Your task to perform on an android device: delete browsing data in the chrome app Image 0: 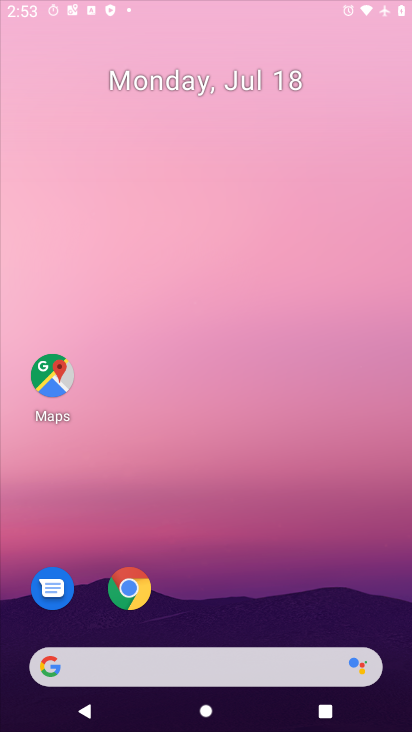
Step 0: press home button
Your task to perform on an android device: delete browsing data in the chrome app Image 1: 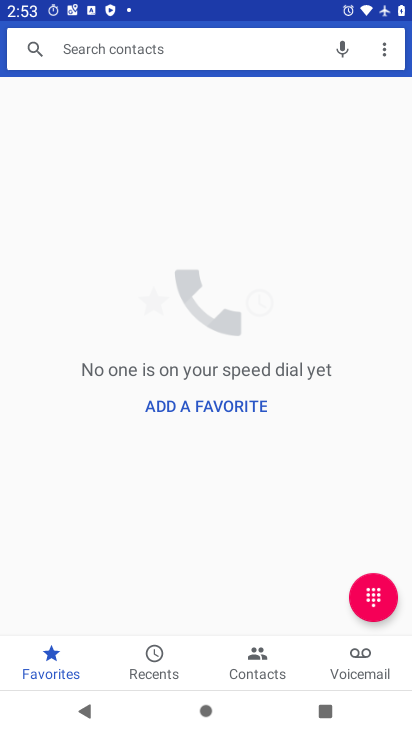
Step 1: drag from (239, 243) to (249, 150)
Your task to perform on an android device: delete browsing data in the chrome app Image 2: 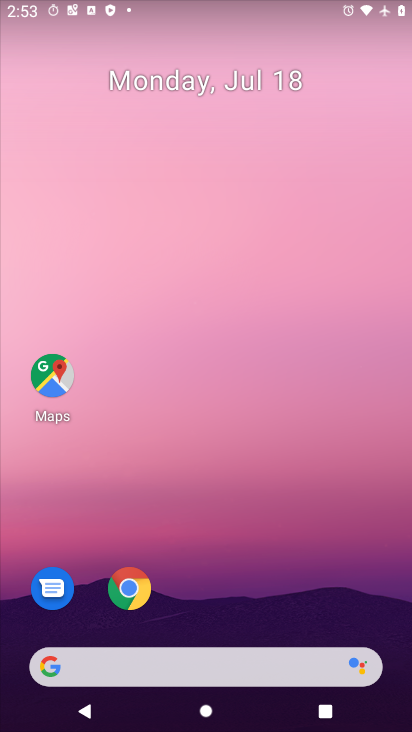
Step 2: drag from (242, 486) to (329, 114)
Your task to perform on an android device: delete browsing data in the chrome app Image 3: 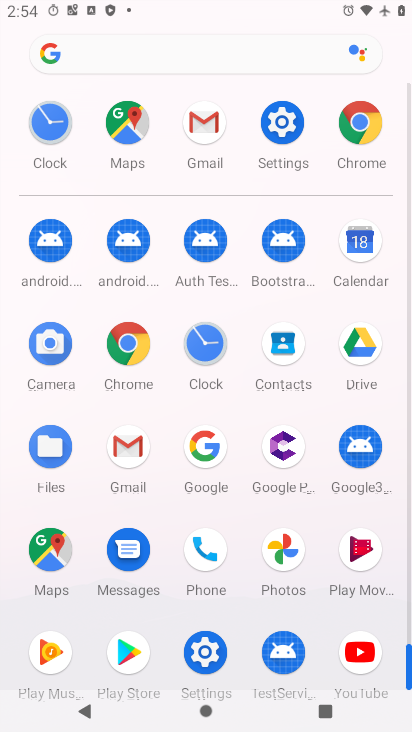
Step 3: click (364, 137)
Your task to perform on an android device: delete browsing data in the chrome app Image 4: 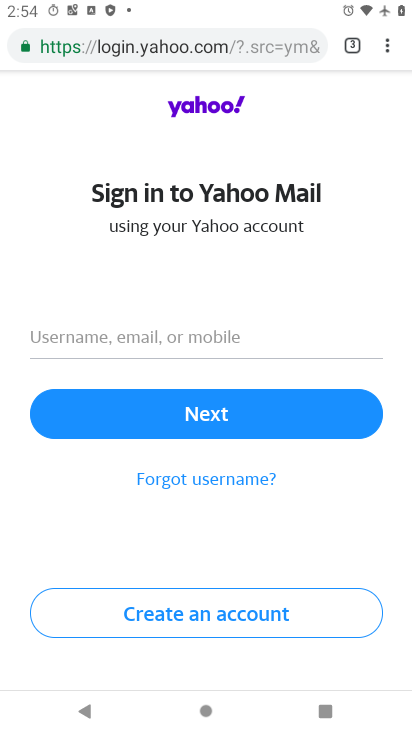
Step 4: click (391, 52)
Your task to perform on an android device: delete browsing data in the chrome app Image 5: 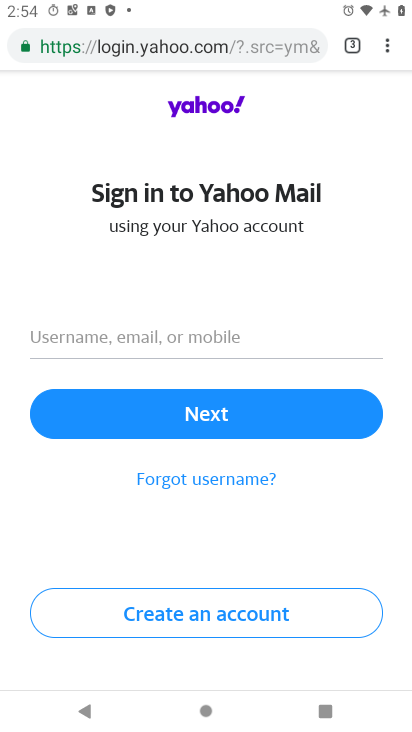
Step 5: click (381, 51)
Your task to perform on an android device: delete browsing data in the chrome app Image 6: 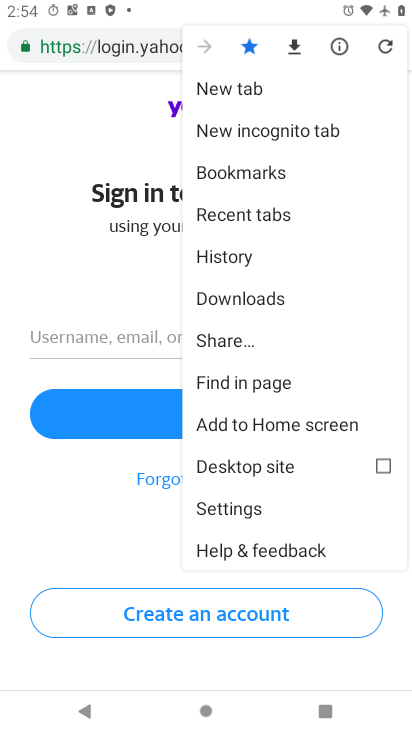
Step 6: click (232, 257)
Your task to perform on an android device: delete browsing data in the chrome app Image 7: 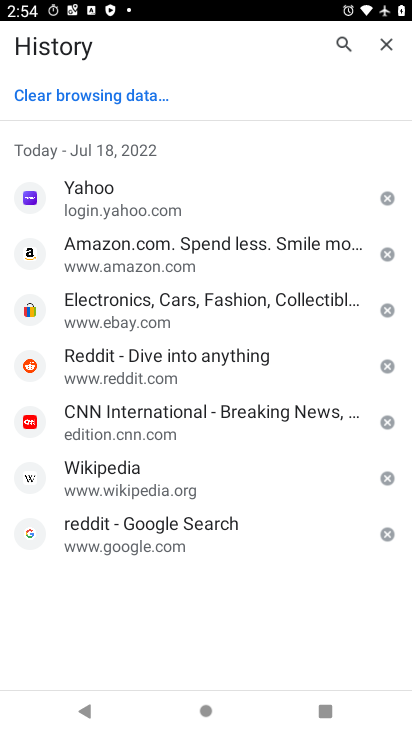
Step 7: click (67, 102)
Your task to perform on an android device: delete browsing data in the chrome app Image 8: 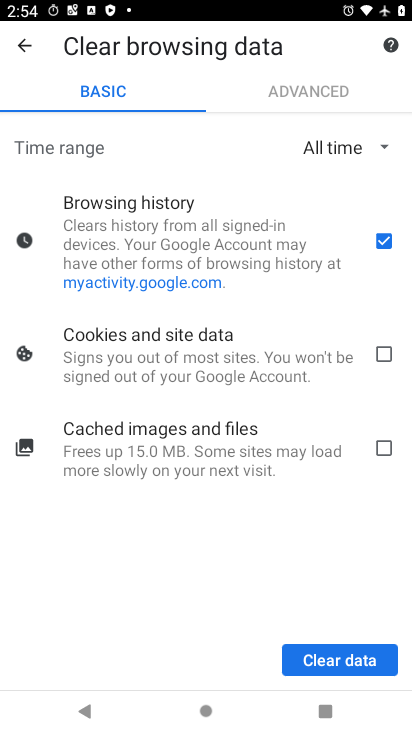
Step 8: click (351, 658)
Your task to perform on an android device: delete browsing data in the chrome app Image 9: 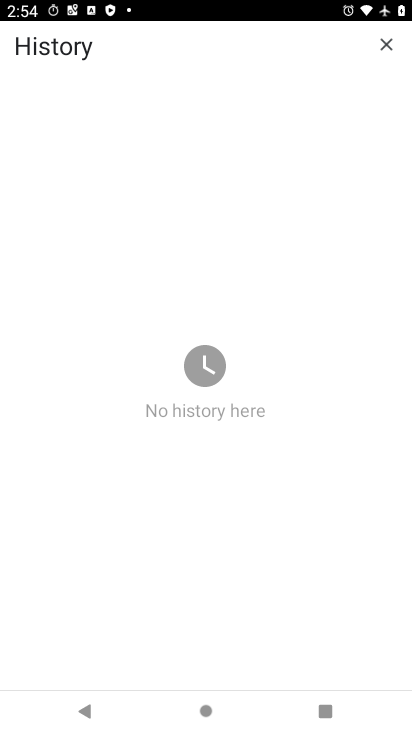
Step 9: task complete